Your task to perform on an android device: Go to sound settings Image 0: 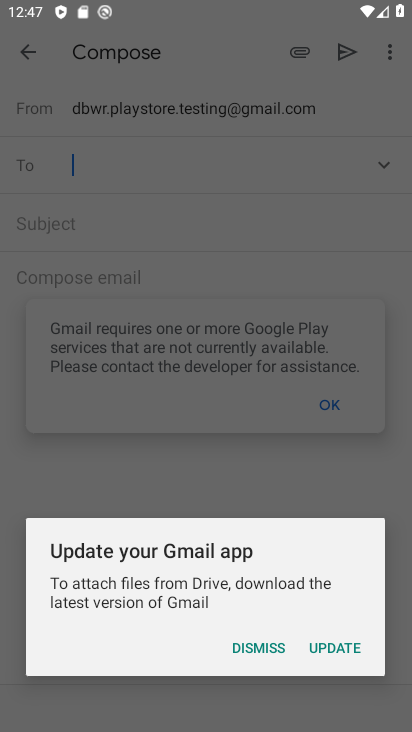
Step 0: press home button
Your task to perform on an android device: Go to sound settings Image 1: 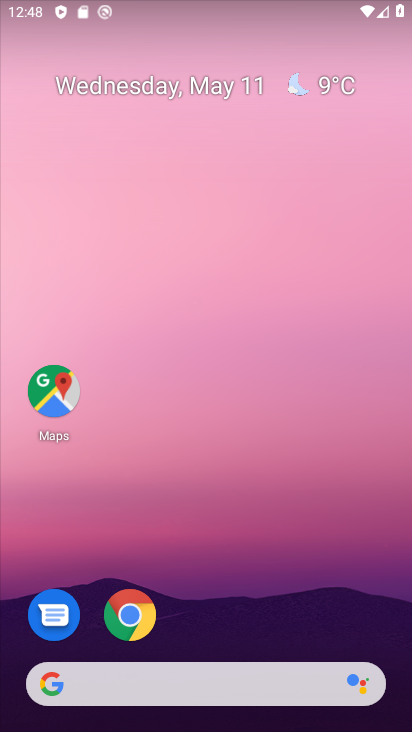
Step 1: drag from (234, 609) to (260, 213)
Your task to perform on an android device: Go to sound settings Image 2: 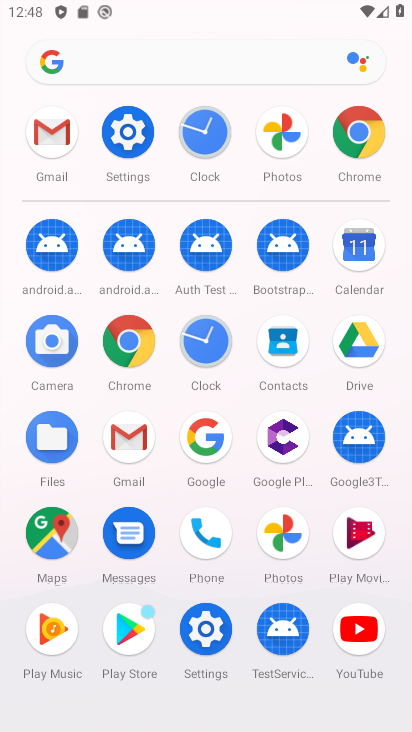
Step 2: click (117, 171)
Your task to perform on an android device: Go to sound settings Image 3: 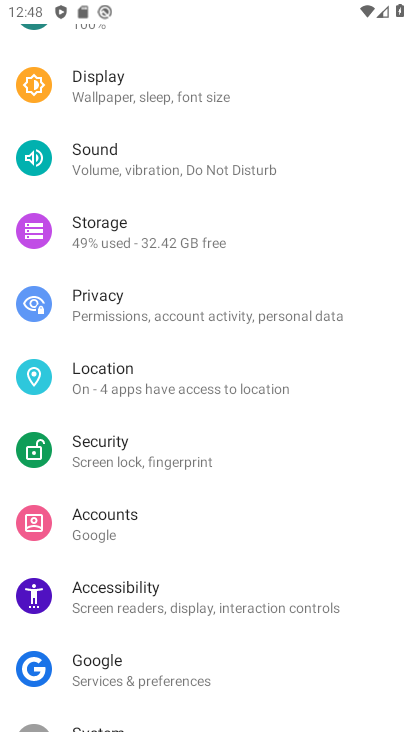
Step 3: click (155, 151)
Your task to perform on an android device: Go to sound settings Image 4: 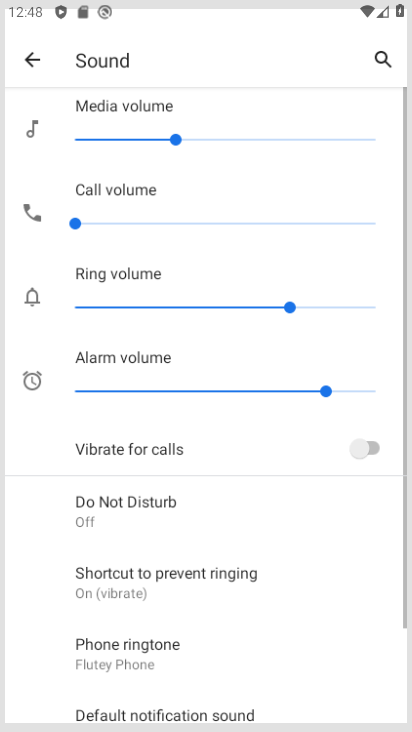
Step 4: task complete